Your task to perform on an android device: Open Android settings Image 0: 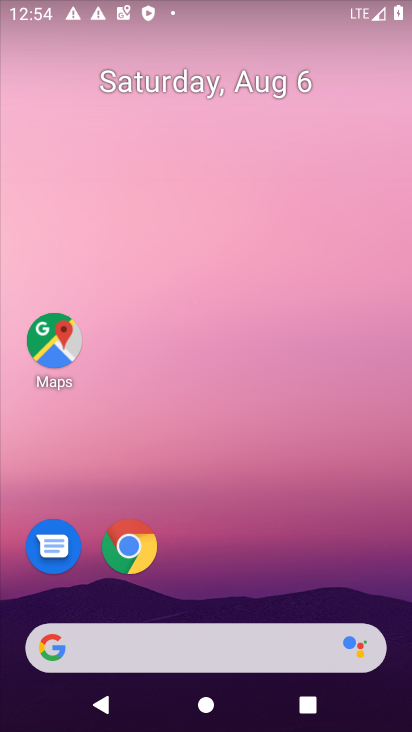
Step 0: drag from (370, 592) to (328, 114)
Your task to perform on an android device: Open Android settings Image 1: 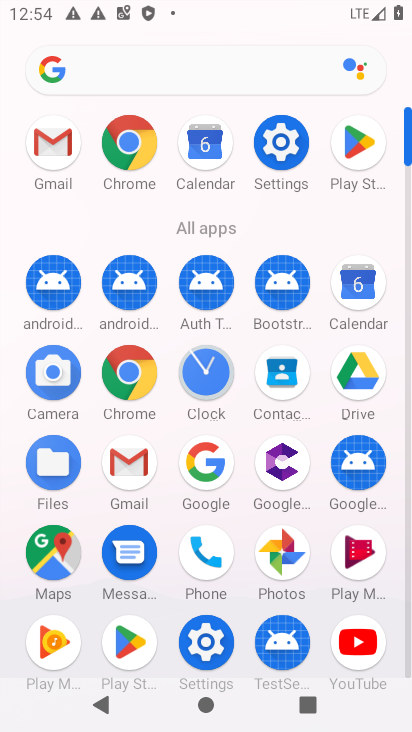
Step 1: click (205, 644)
Your task to perform on an android device: Open Android settings Image 2: 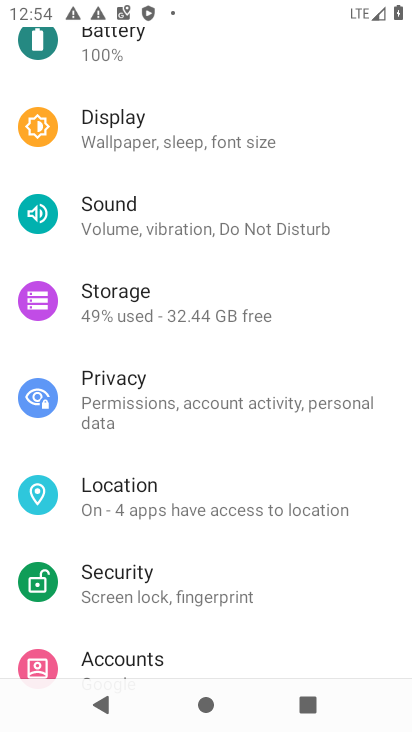
Step 2: drag from (338, 646) to (285, 115)
Your task to perform on an android device: Open Android settings Image 3: 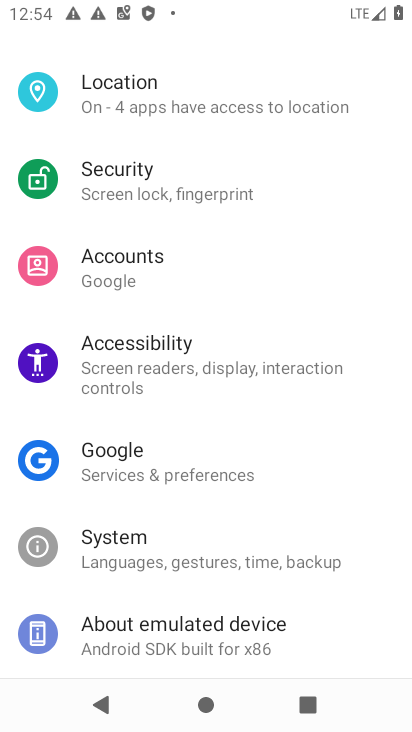
Step 3: click (128, 632)
Your task to perform on an android device: Open Android settings Image 4: 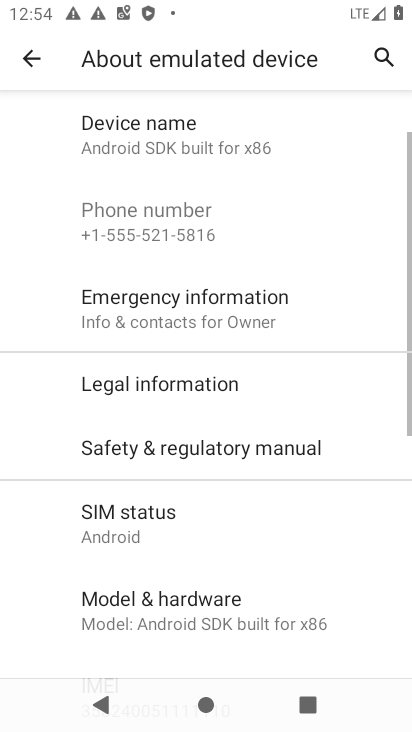
Step 4: task complete